Your task to perform on an android device: Do I have any events this weekend? Image 0: 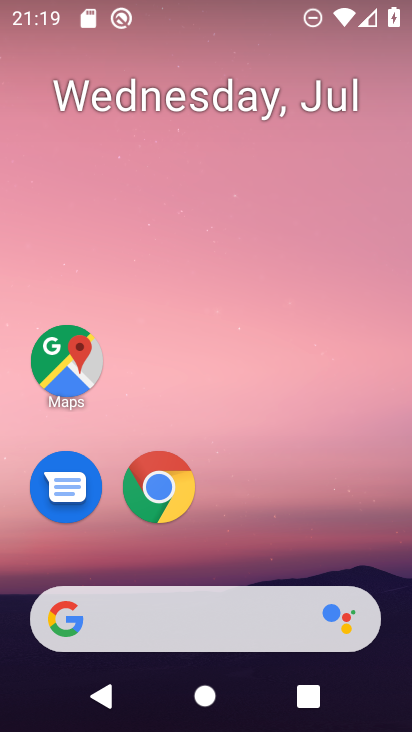
Step 0: press home button
Your task to perform on an android device: Do I have any events this weekend? Image 1: 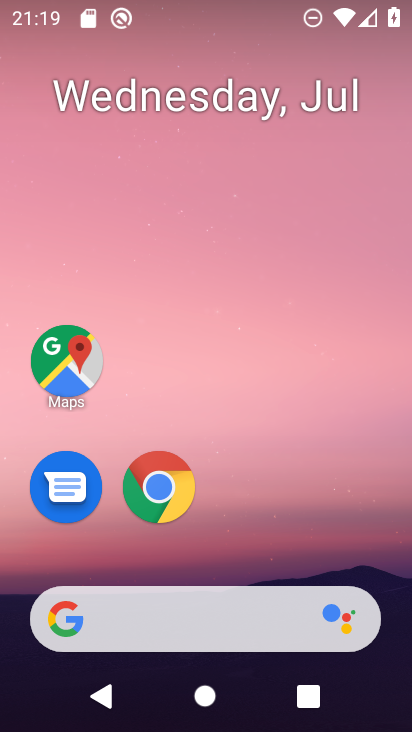
Step 1: drag from (364, 514) to (353, 82)
Your task to perform on an android device: Do I have any events this weekend? Image 2: 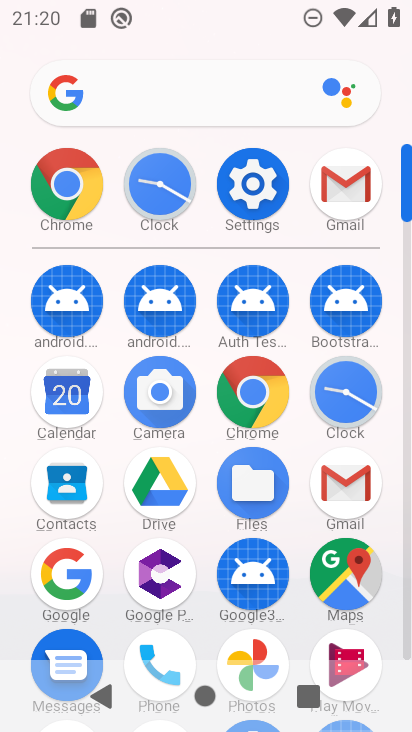
Step 2: click (77, 394)
Your task to perform on an android device: Do I have any events this weekend? Image 3: 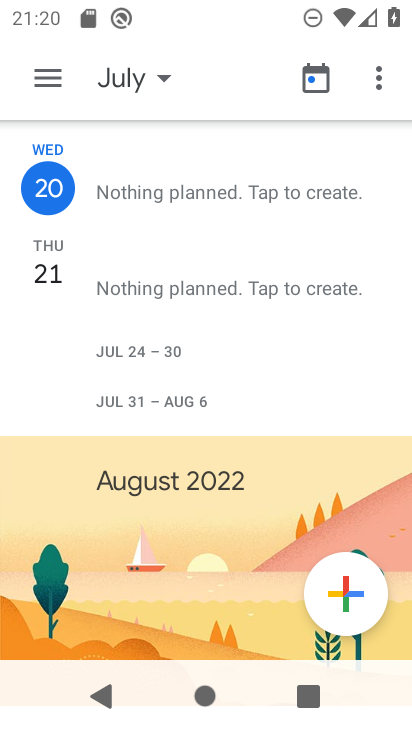
Step 3: task complete